Your task to perform on an android device: Find coffee shops on Maps Image 0: 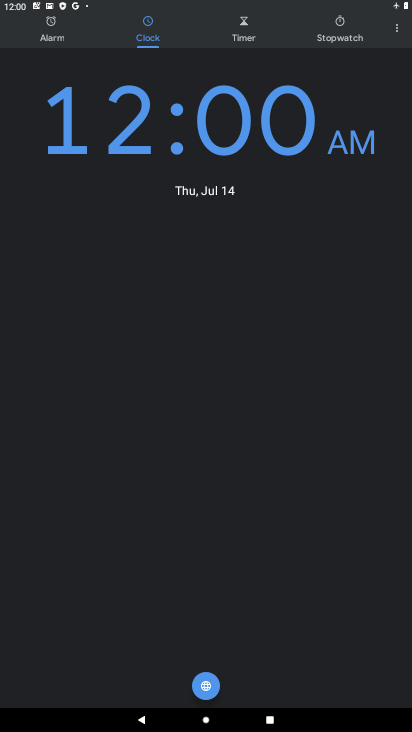
Step 0: press home button
Your task to perform on an android device: Find coffee shops on Maps Image 1: 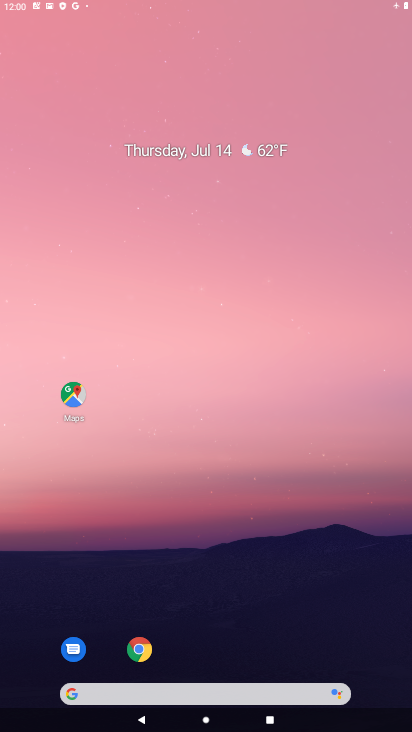
Step 1: drag from (395, 668) to (293, 32)
Your task to perform on an android device: Find coffee shops on Maps Image 2: 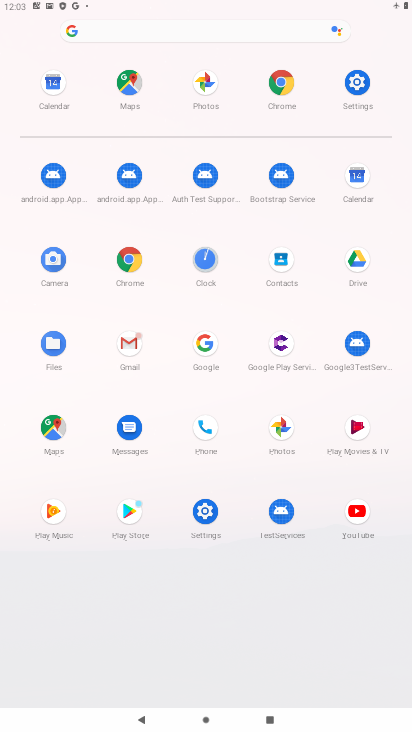
Step 2: click (49, 426)
Your task to perform on an android device: Find coffee shops on Maps Image 3: 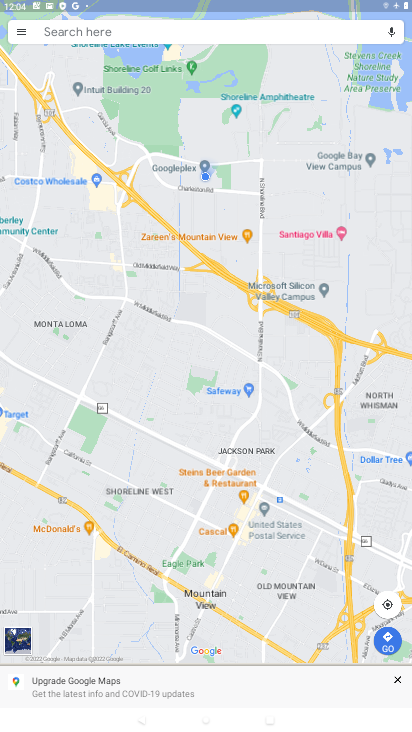
Step 3: click (111, 26)
Your task to perform on an android device: Find coffee shops on Maps Image 4: 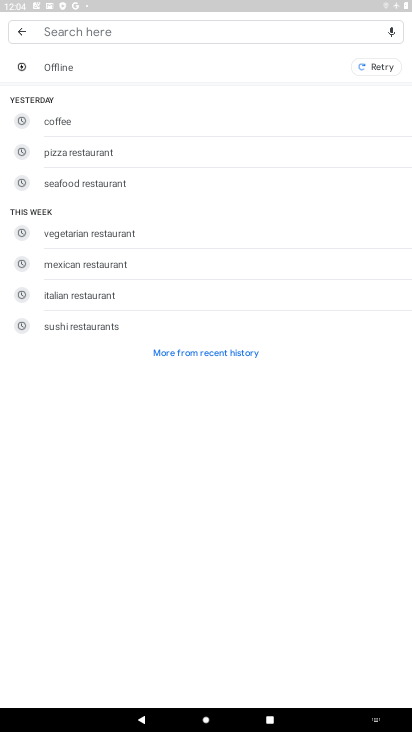
Step 4: click (48, 119)
Your task to perform on an android device: Find coffee shops on Maps Image 5: 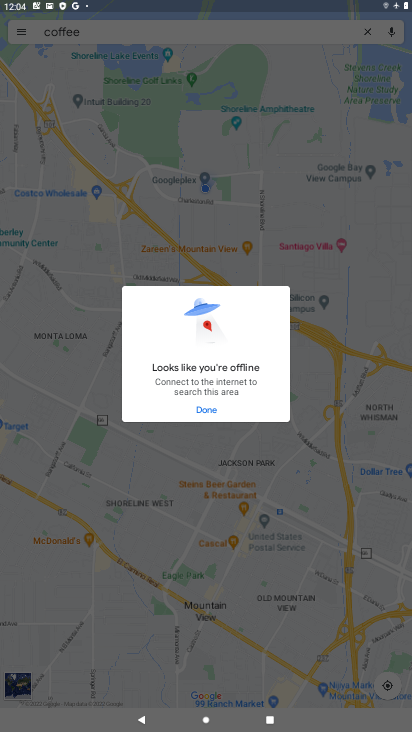
Step 5: task complete